Your task to perform on an android device: Do I have any events tomorrow? Image 0: 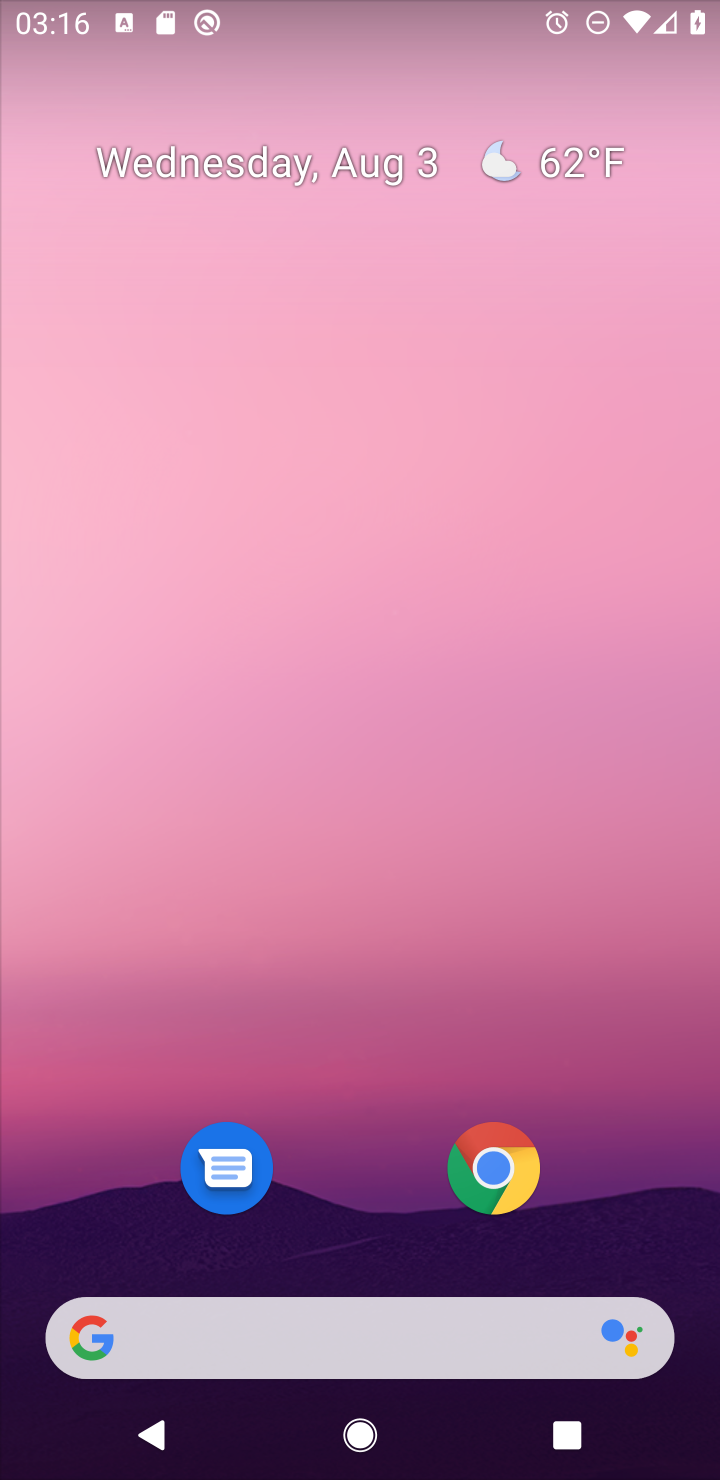
Step 0: drag from (650, 1223) to (491, 226)
Your task to perform on an android device: Do I have any events tomorrow? Image 1: 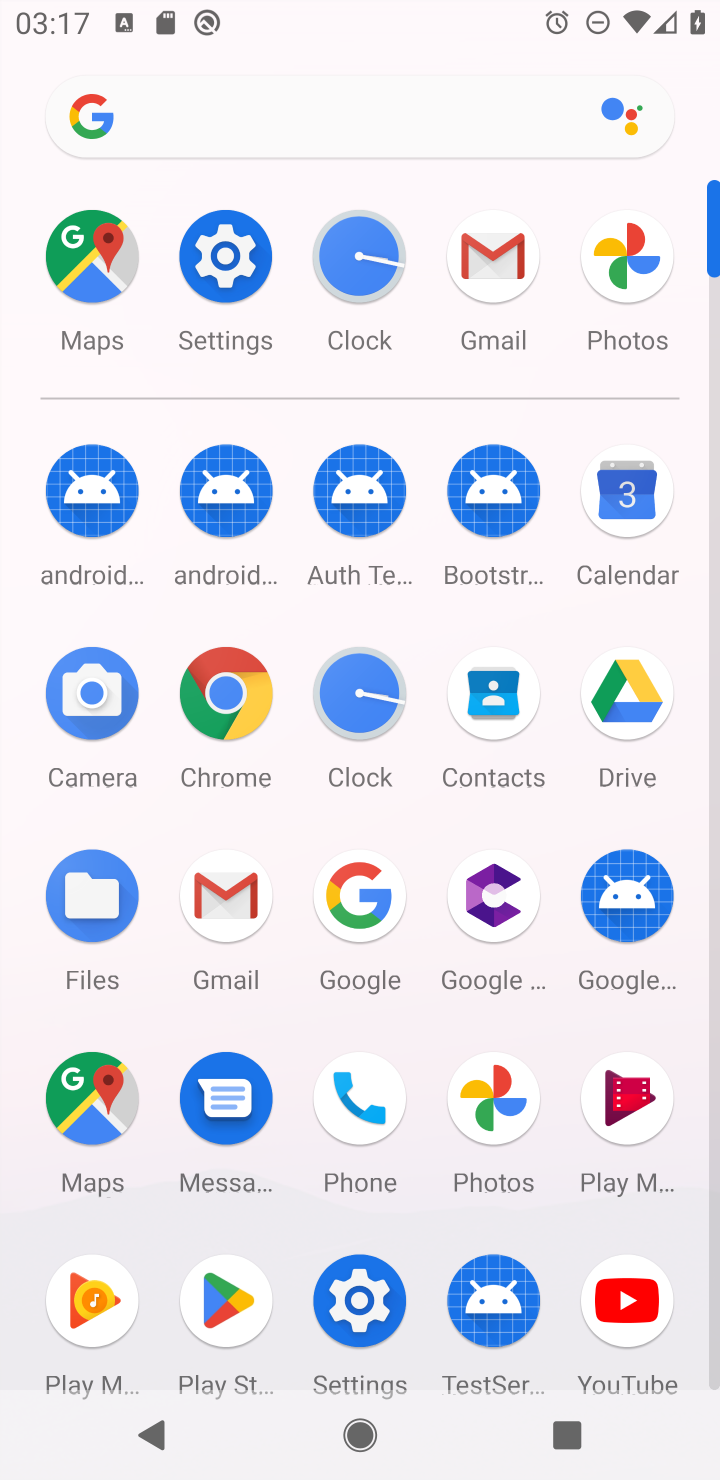
Step 1: click (623, 492)
Your task to perform on an android device: Do I have any events tomorrow? Image 2: 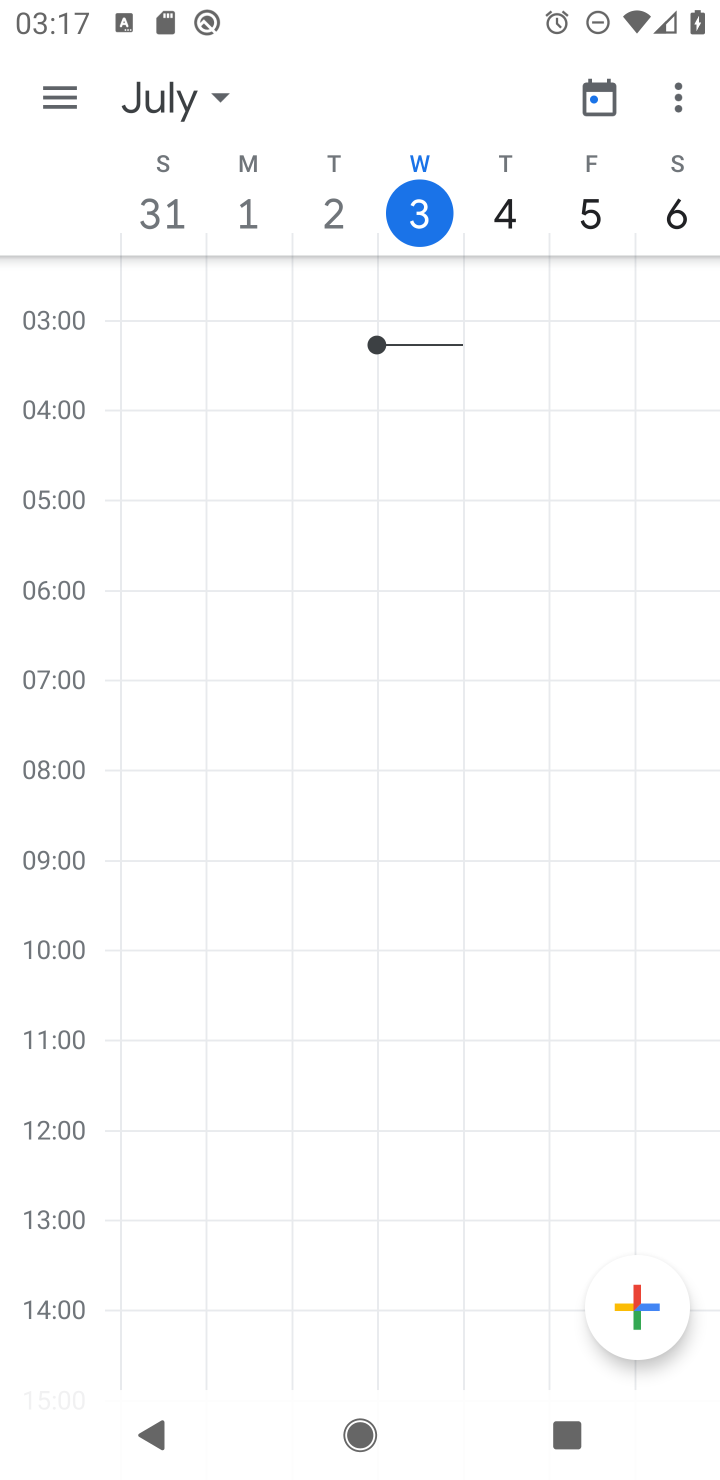
Step 2: click (73, 99)
Your task to perform on an android device: Do I have any events tomorrow? Image 3: 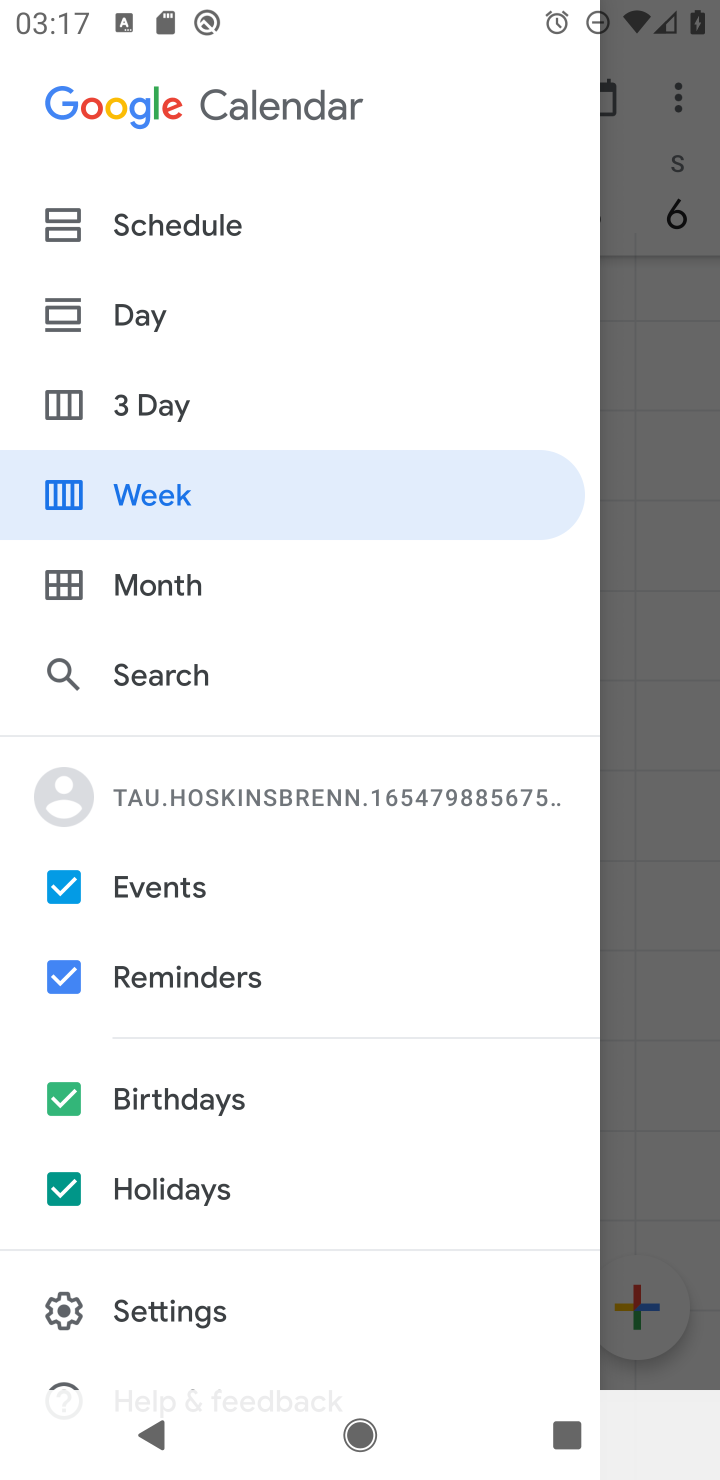
Step 3: click (141, 320)
Your task to perform on an android device: Do I have any events tomorrow? Image 4: 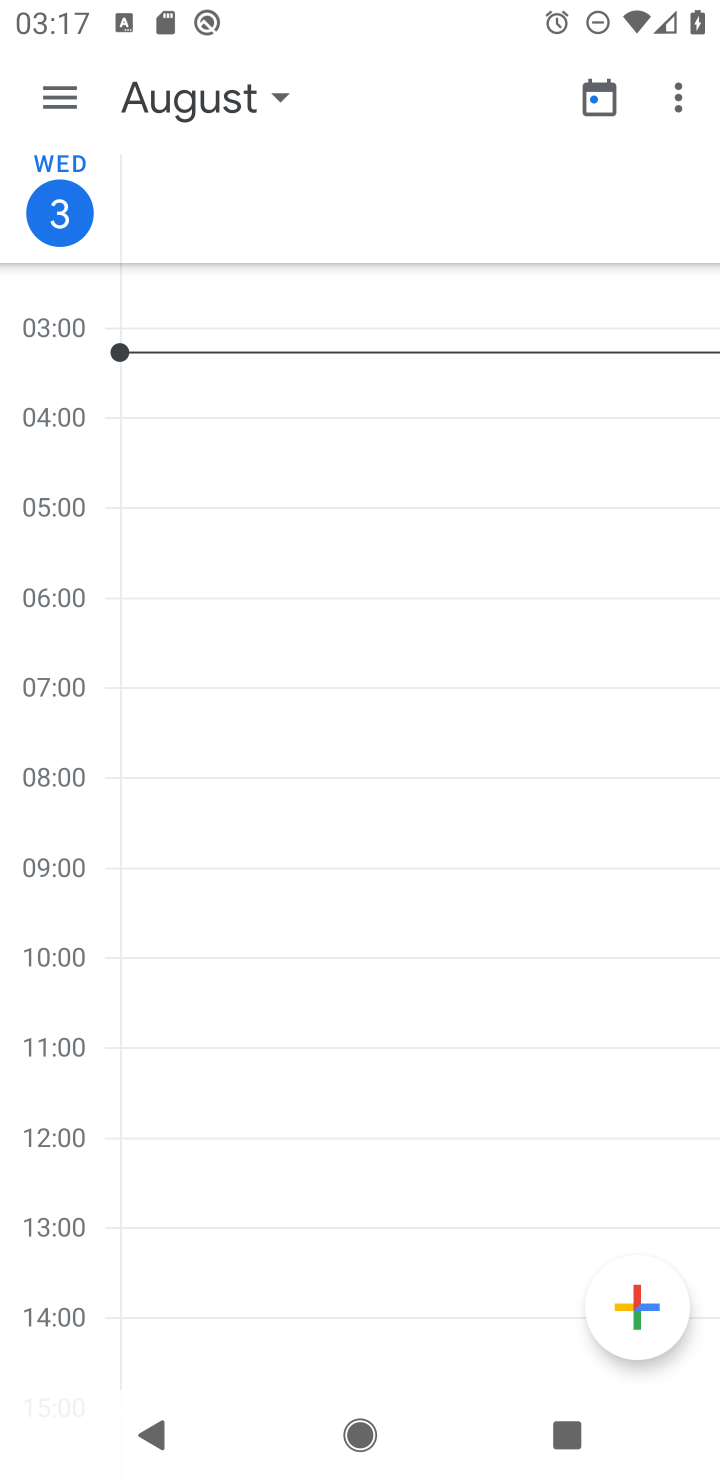
Step 4: click (274, 99)
Your task to perform on an android device: Do I have any events tomorrow? Image 5: 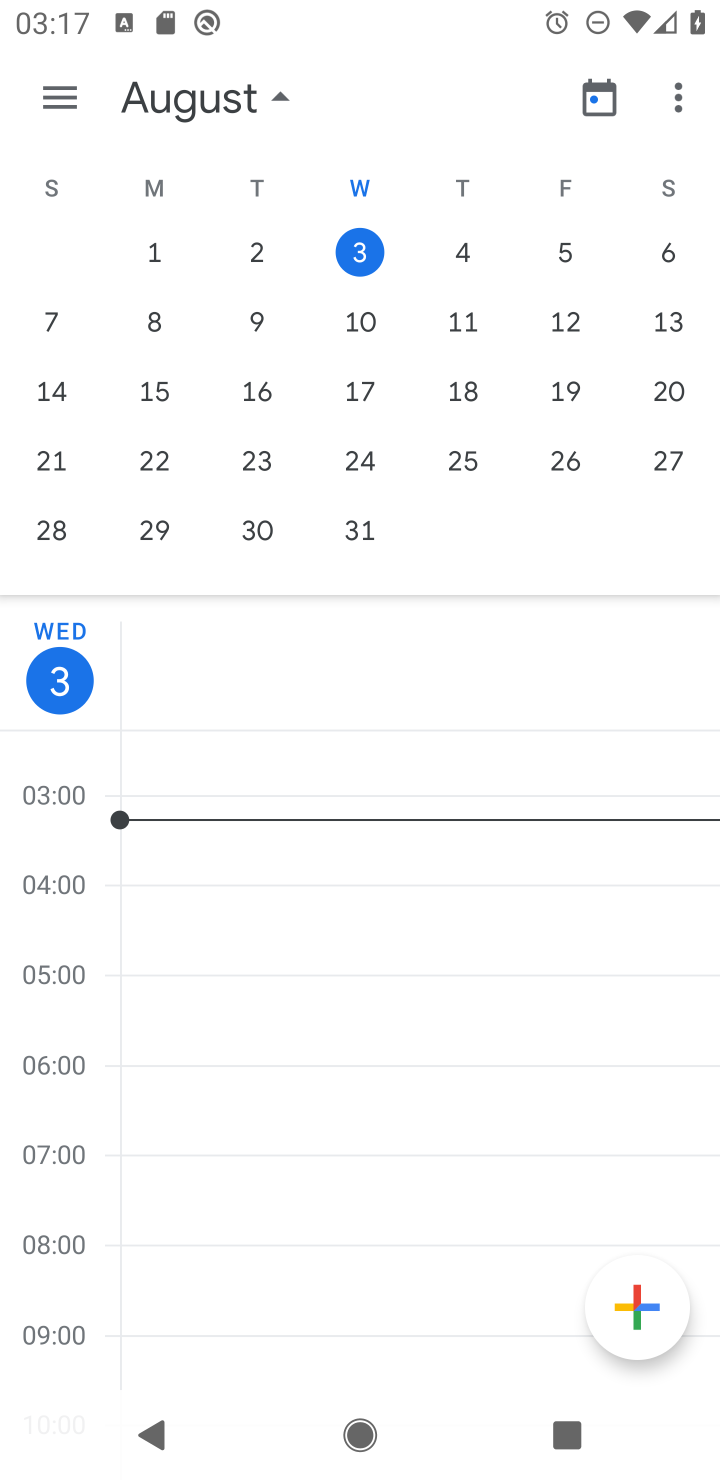
Step 5: drag from (41, 457) to (650, 385)
Your task to perform on an android device: Do I have any events tomorrow? Image 6: 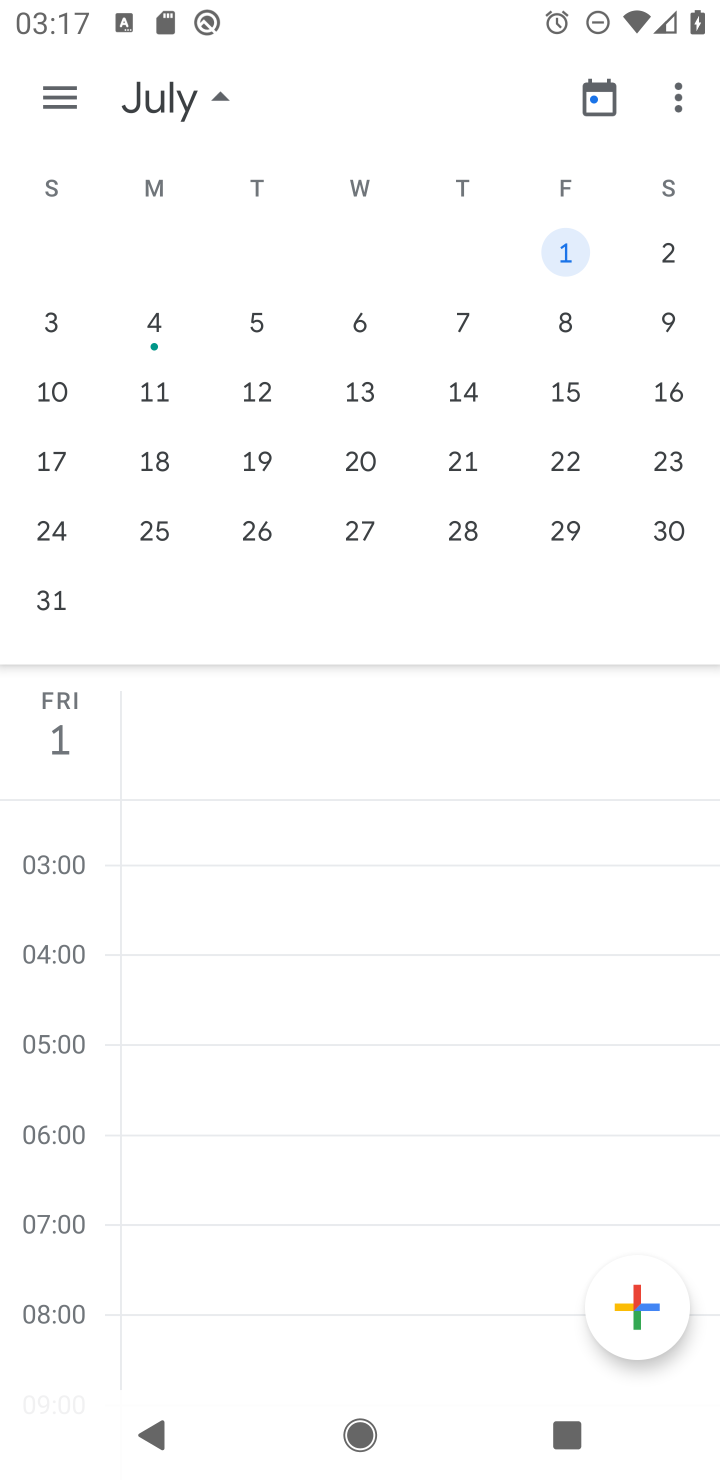
Step 6: drag from (661, 418) to (57, 391)
Your task to perform on an android device: Do I have any events tomorrow? Image 7: 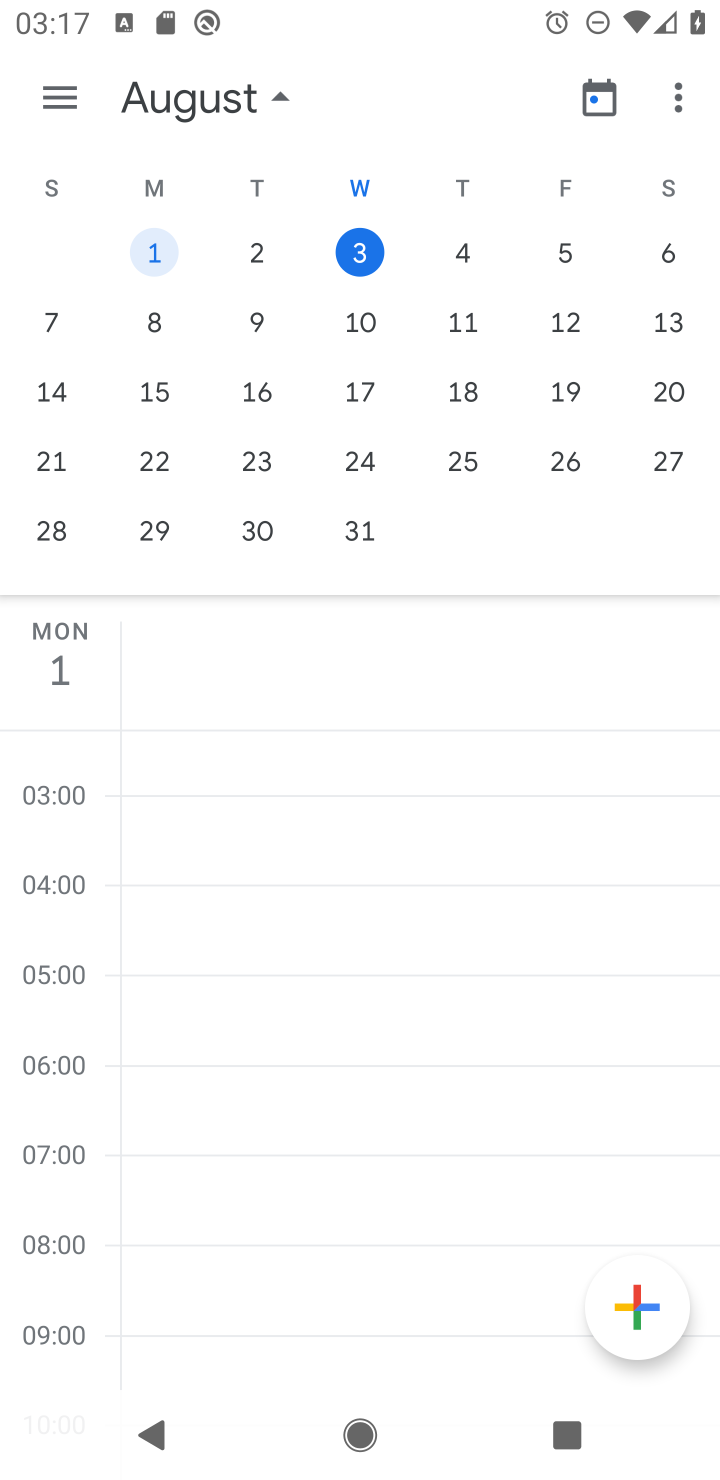
Step 7: click (458, 240)
Your task to perform on an android device: Do I have any events tomorrow? Image 8: 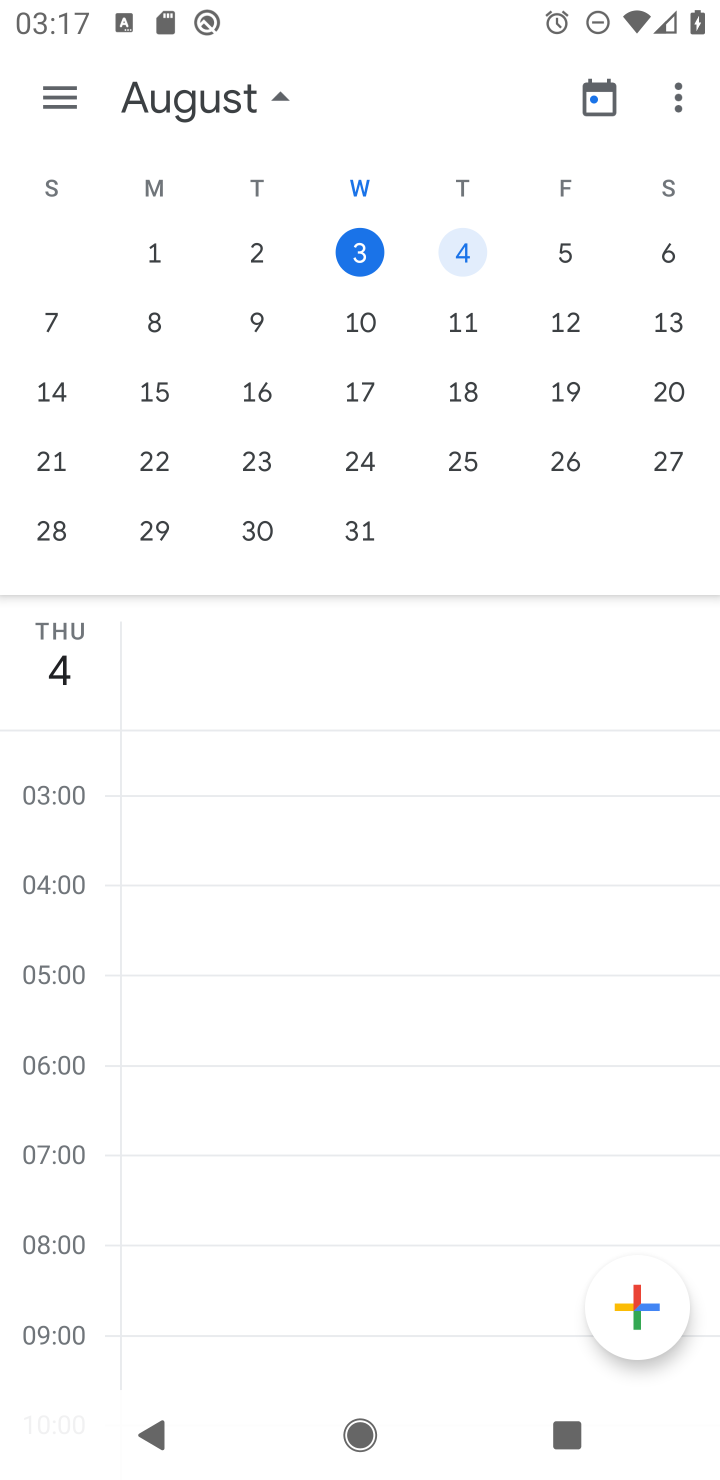
Step 8: task complete